Your task to perform on an android device: Open ESPN.com Image 0: 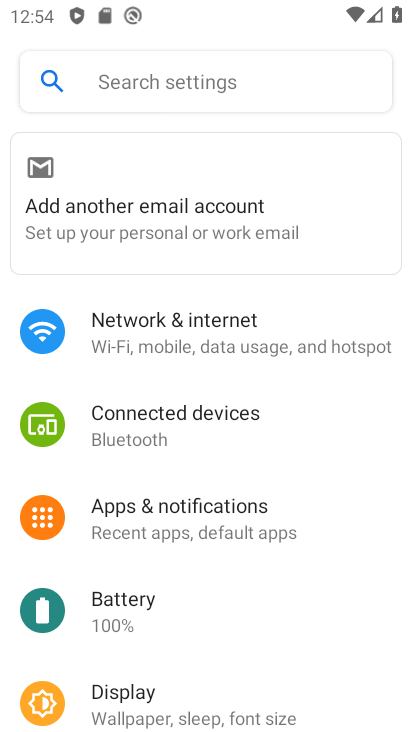
Step 0: press home button
Your task to perform on an android device: Open ESPN.com Image 1: 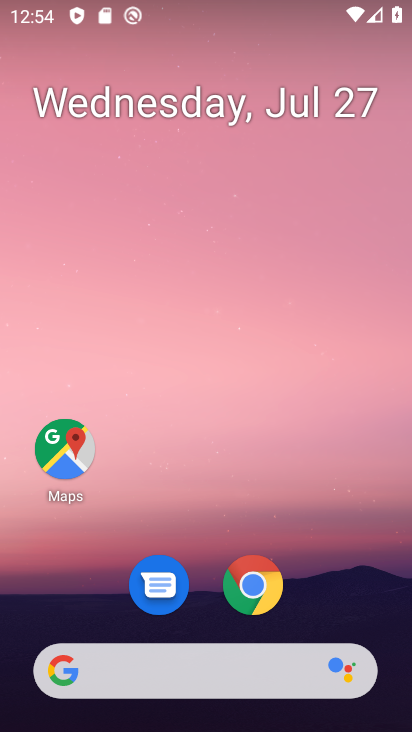
Step 1: drag from (194, 658) to (248, 147)
Your task to perform on an android device: Open ESPN.com Image 2: 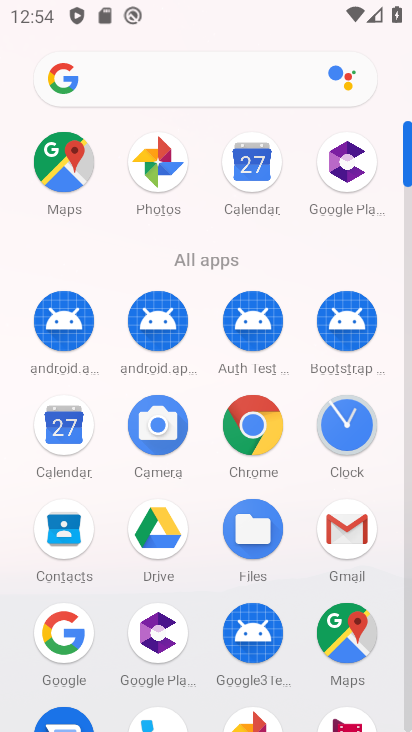
Step 2: click (256, 431)
Your task to perform on an android device: Open ESPN.com Image 3: 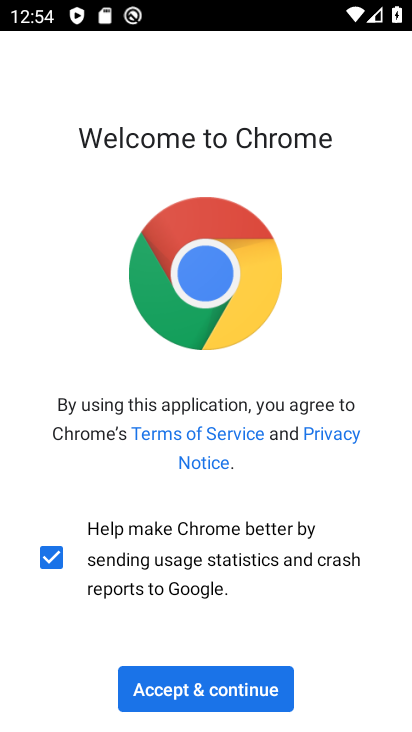
Step 3: click (211, 682)
Your task to perform on an android device: Open ESPN.com Image 4: 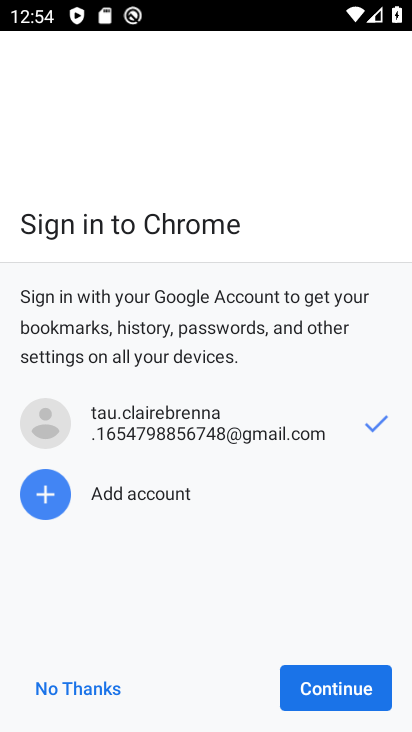
Step 4: click (304, 673)
Your task to perform on an android device: Open ESPN.com Image 5: 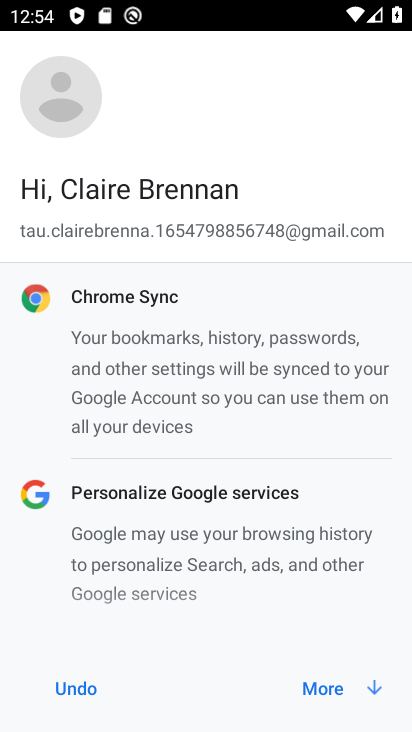
Step 5: click (315, 683)
Your task to perform on an android device: Open ESPN.com Image 6: 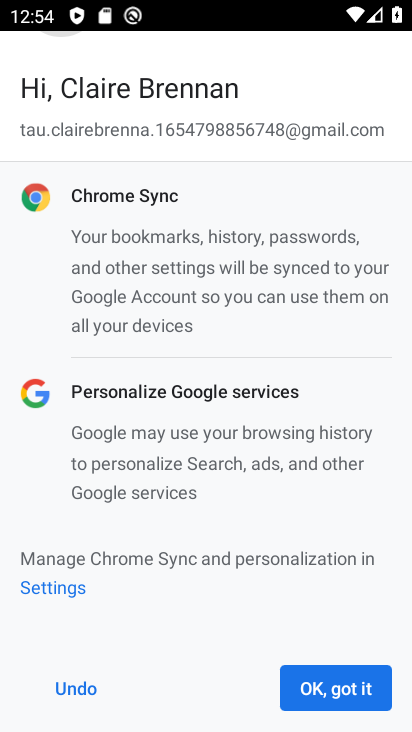
Step 6: click (308, 690)
Your task to perform on an android device: Open ESPN.com Image 7: 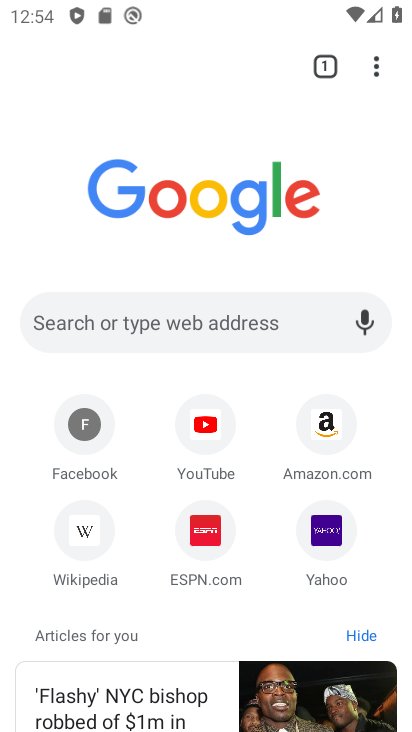
Step 7: click (207, 533)
Your task to perform on an android device: Open ESPN.com Image 8: 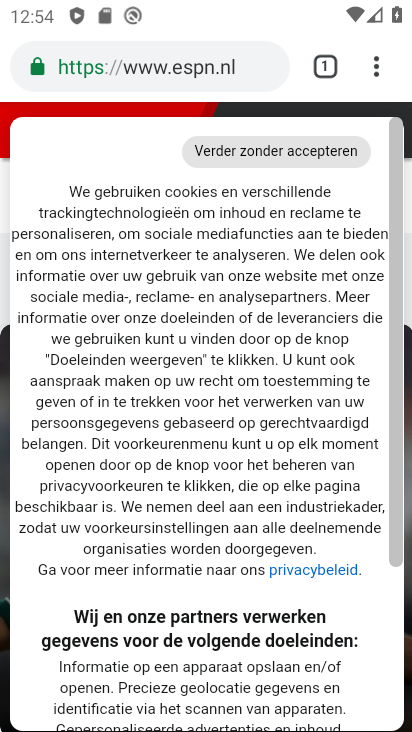
Step 8: task complete